Your task to perform on an android device: read, delete, or share a saved page in the chrome app Image 0: 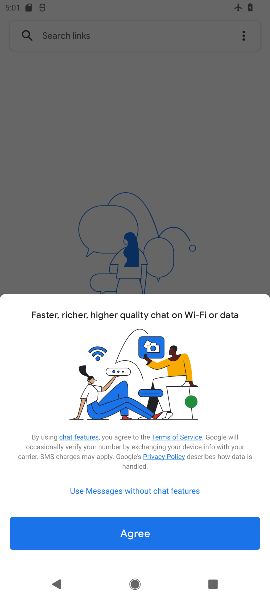
Step 0: press home button
Your task to perform on an android device: read, delete, or share a saved page in the chrome app Image 1: 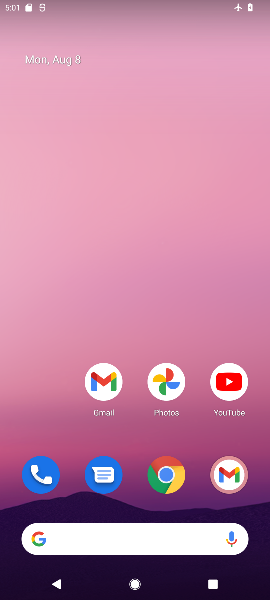
Step 1: drag from (58, 418) to (54, 229)
Your task to perform on an android device: read, delete, or share a saved page in the chrome app Image 2: 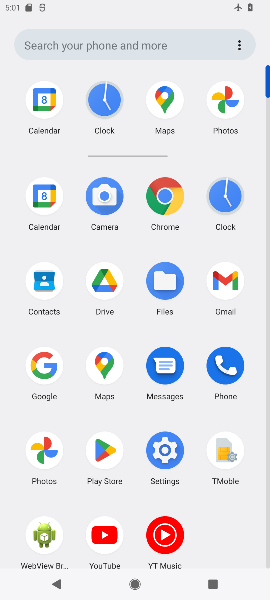
Step 2: click (169, 193)
Your task to perform on an android device: read, delete, or share a saved page in the chrome app Image 3: 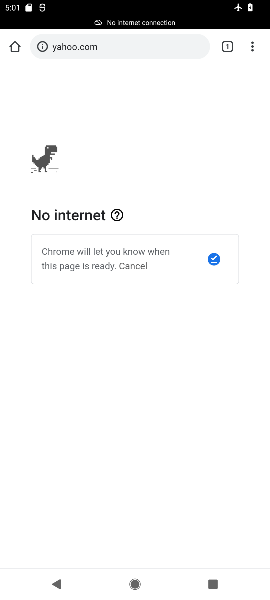
Step 3: click (251, 48)
Your task to perform on an android device: read, delete, or share a saved page in the chrome app Image 4: 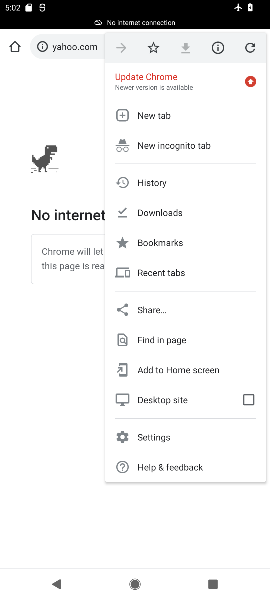
Step 4: click (189, 211)
Your task to perform on an android device: read, delete, or share a saved page in the chrome app Image 5: 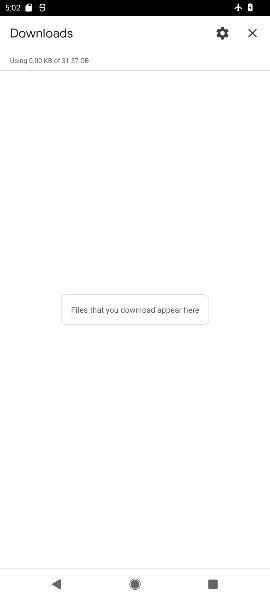
Step 5: click (87, 31)
Your task to perform on an android device: read, delete, or share a saved page in the chrome app Image 6: 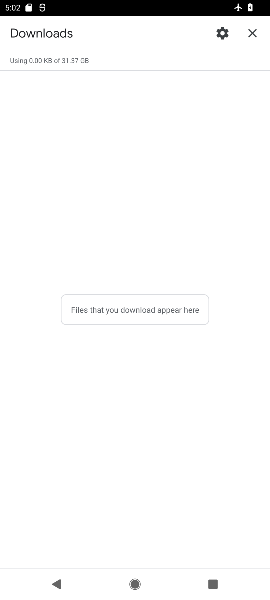
Step 6: click (59, 37)
Your task to perform on an android device: read, delete, or share a saved page in the chrome app Image 7: 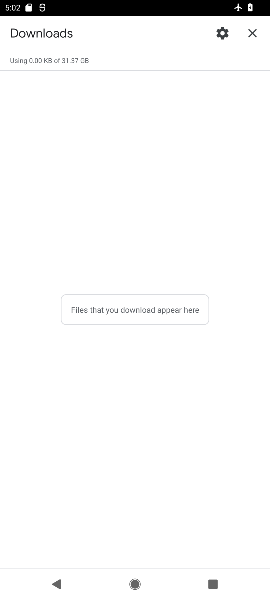
Step 7: task complete